Your task to perform on an android device: Go to notification settings Image 0: 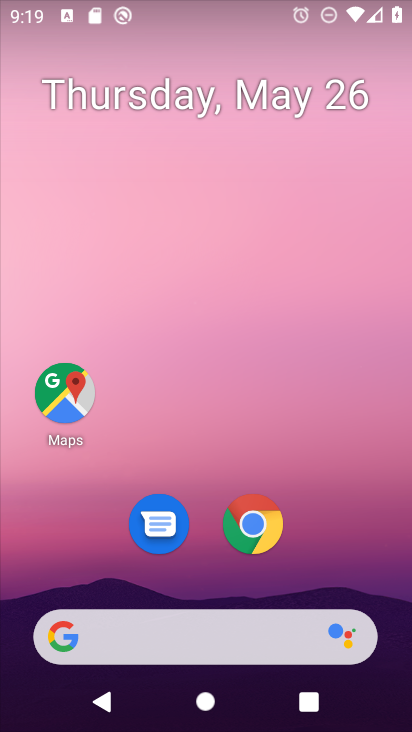
Step 0: drag from (197, 478) to (199, 0)
Your task to perform on an android device: Go to notification settings Image 1: 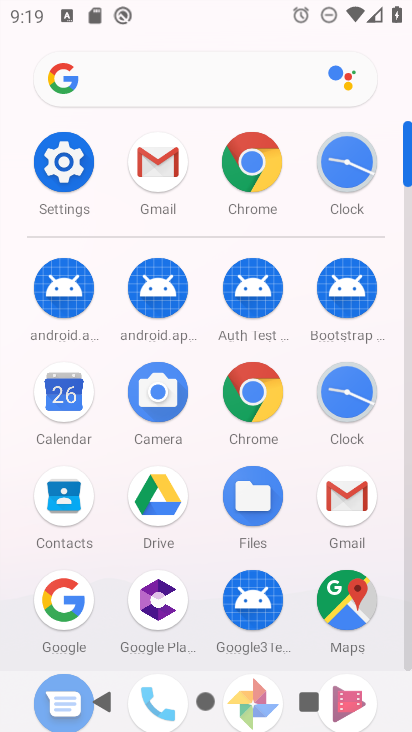
Step 1: click (67, 164)
Your task to perform on an android device: Go to notification settings Image 2: 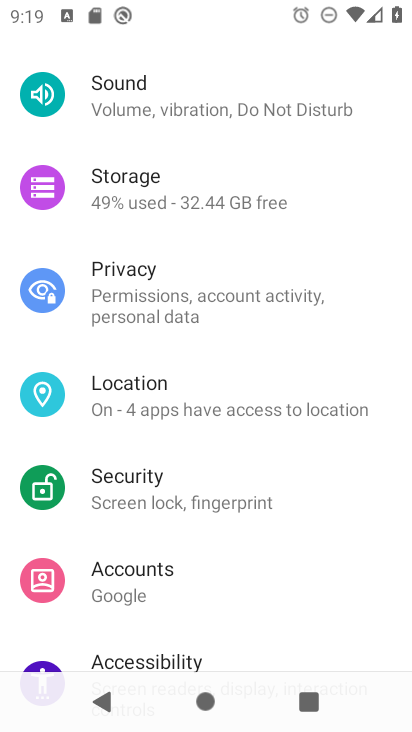
Step 2: drag from (210, 206) to (244, 533)
Your task to perform on an android device: Go to notification settings Image 3: 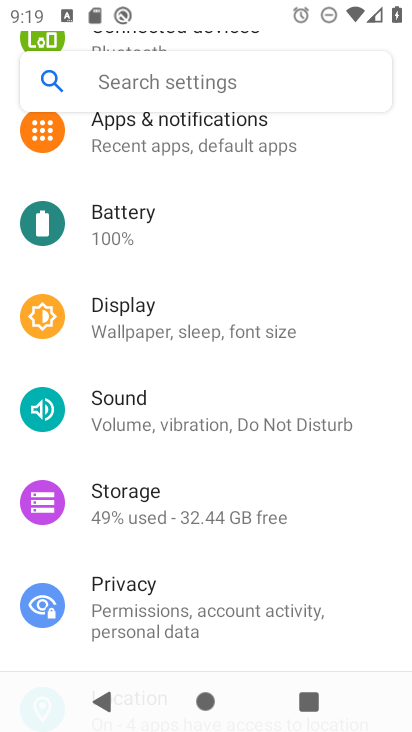
Step 3: drag from (238, 560) to (249, 636)
Your task to perform on an android device: Go to notification settings Image 4: 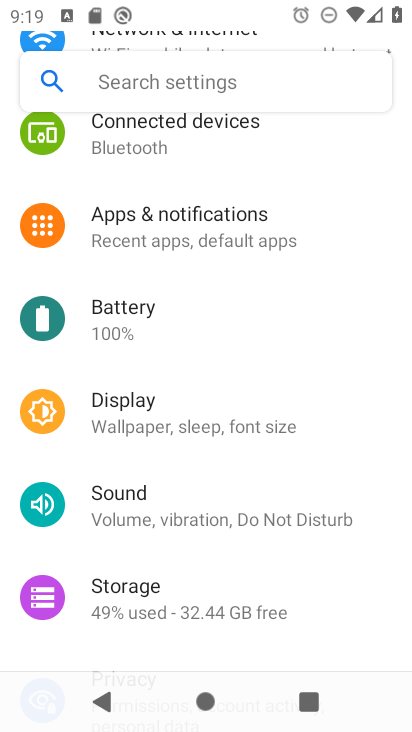
Step 4: click (213, 222)
Your task to perform on an android device: Go to notification settings Image 5: 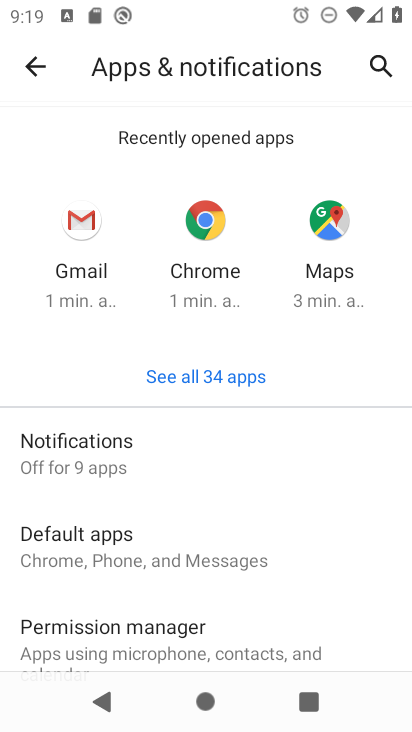
Step 5: click (163, 457)
Your task to perform on an android device: Go to notification settings Image 6: 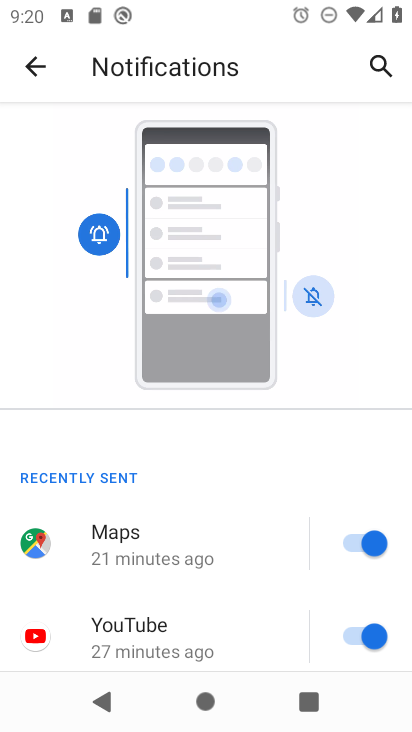
Step 6: task complete